Your task to perform on an android device: change the upload size in google photos Image 0: 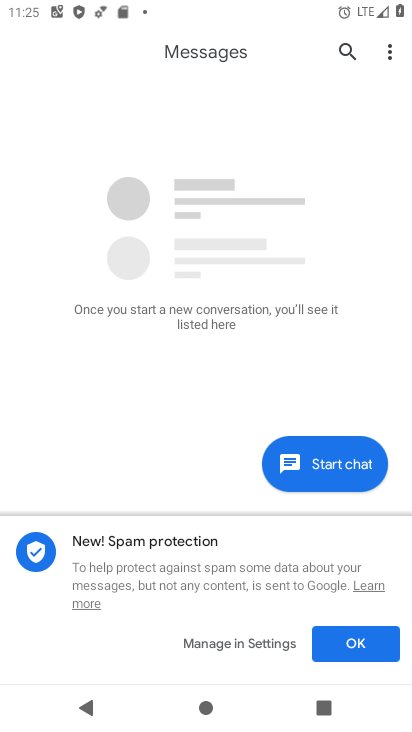
Step 0: press home button
Your task to perform on an android device: change the upload size in google photos Image 1: 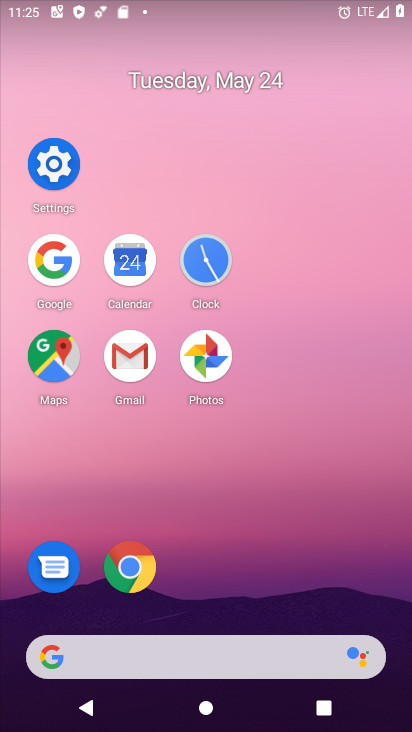
Step 1: click (225, 360)
Your task to perform on an android device: change the upload size in google photos Image 2: 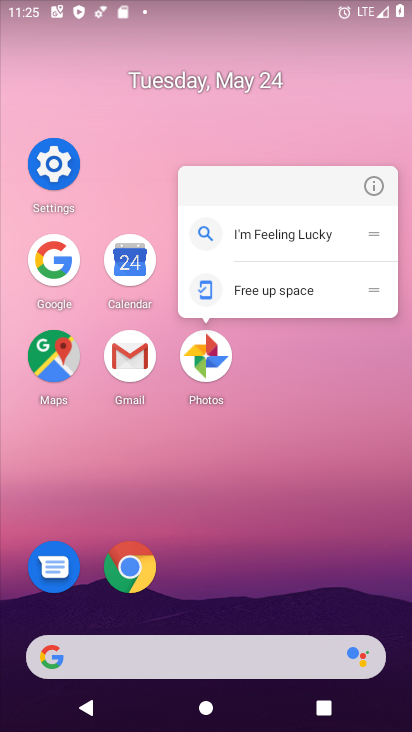
Step 2: click (226, 359)
Your task to perform on an android device: change the upload size in google photos Image 3: 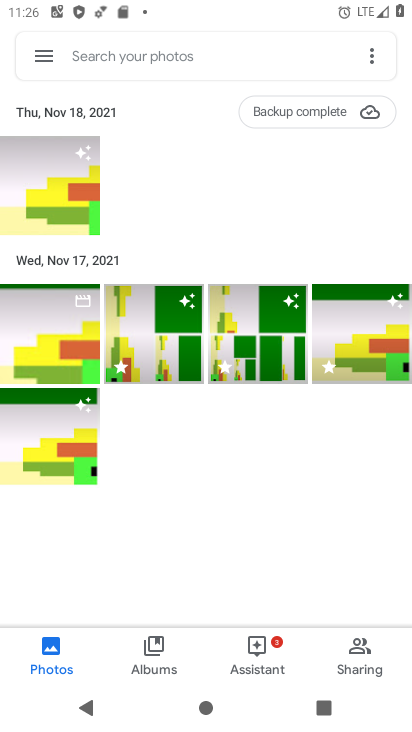
Step 3: click (54, 59)
Your task to perform on an android device: change the upload size in google photos Image 4: 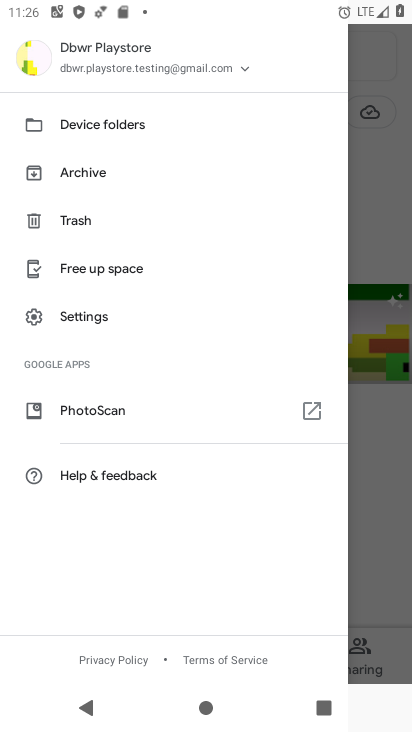
Step 4: click (87, 306)
Your task to perform on an android device: change the upload size in google photos Image 5: 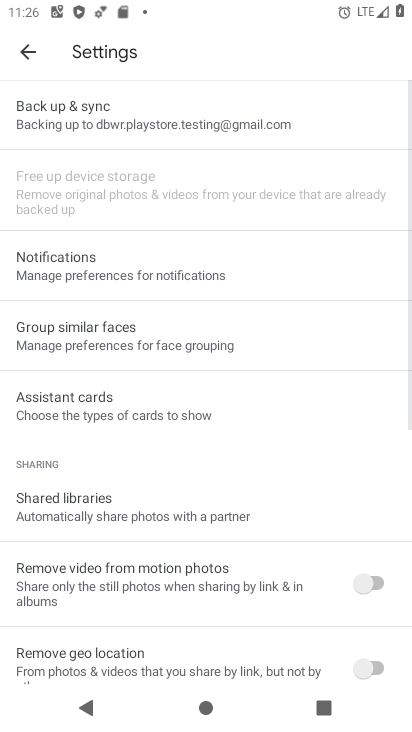
Step 5: click (152, 101)
Your task to perform on an android device: change the upload size in google photos Image 6: 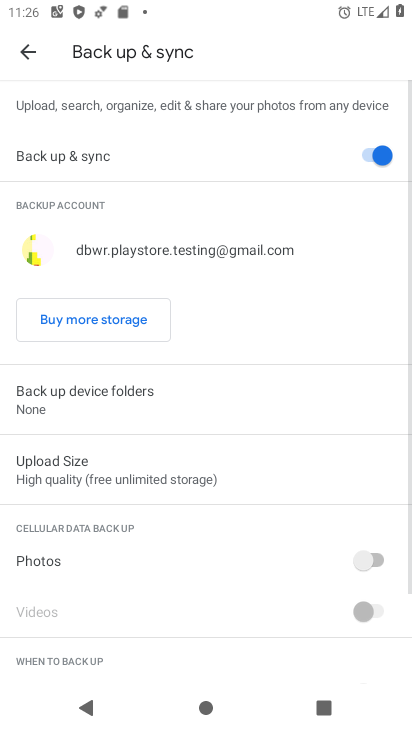
Step 6: click (251, 446)
Your task to perform on an android device: change the upload size in google photos Image 7: 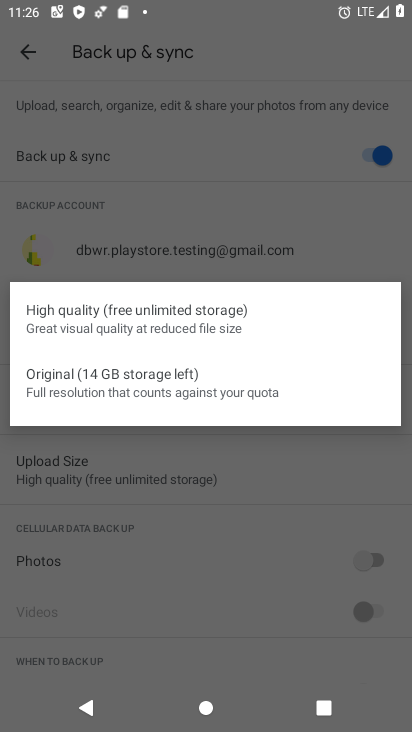
Step 7: click (238, 386)
Your task to perform on an android device: change the upload size in google photos Image 8: 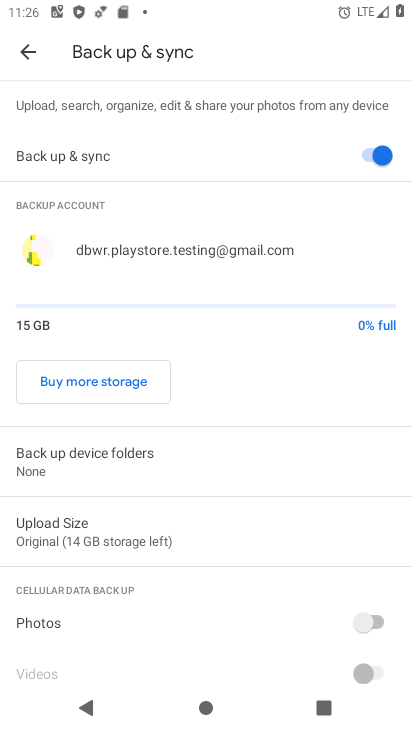
Step 8: task complete